Your task to perform on an android device: turn on showing notifications on the lock screen Image 0: 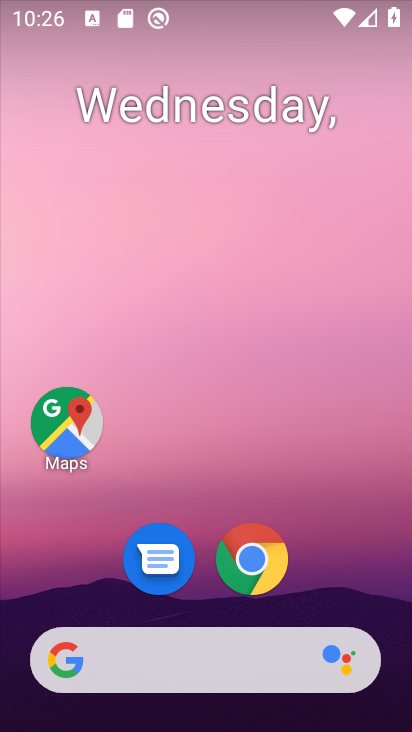
Step 0: drag from (221, 542) to (225, 13)
Your task to perform on an android device: turn on showing notifications on the lock screen Image 1: 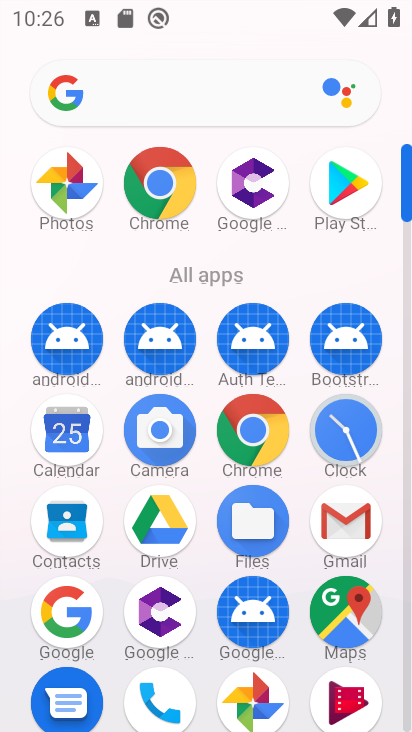
Step 1: drag from (188, 510) to (185, 166)
Your task to perform on an android device: turn on showing notifications on the lock screen Image 2: 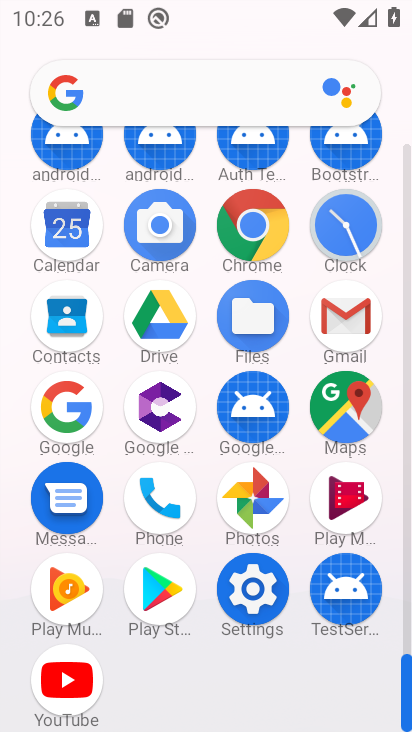
Step 2: click (262, 607)
Your task to perform on an android device: turn on showing notifications on the lock screen Image 3: 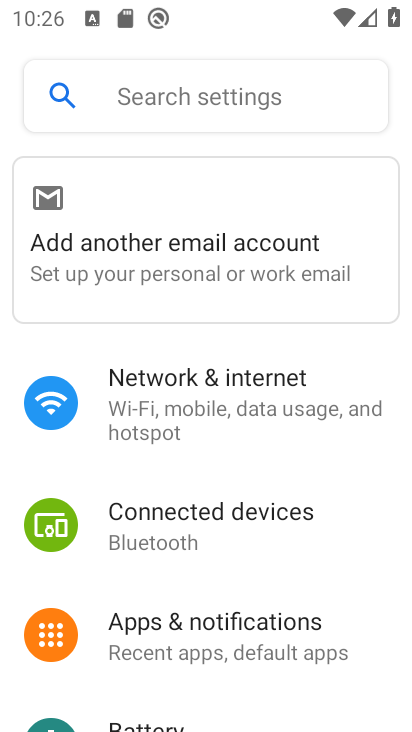
Step 3: drag from (229, 566) to (281, 234)
Your task to perform on an android device: turn on showing notifications on the lock screen Image 4: 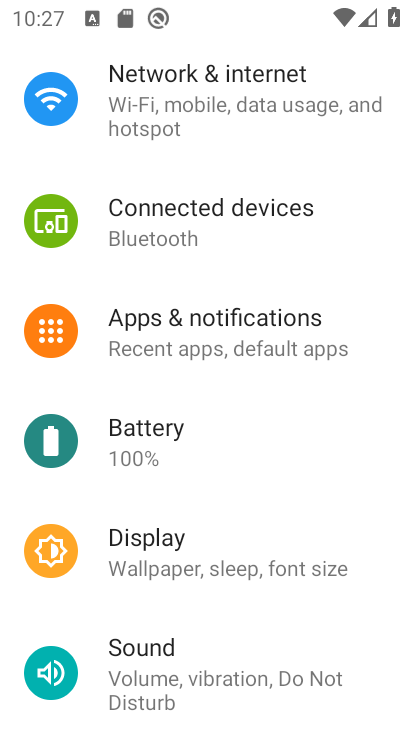
Step 4: click (249, 341)
Your task to perform on an android device: turn on showing notifications on the lock screen Image 5: 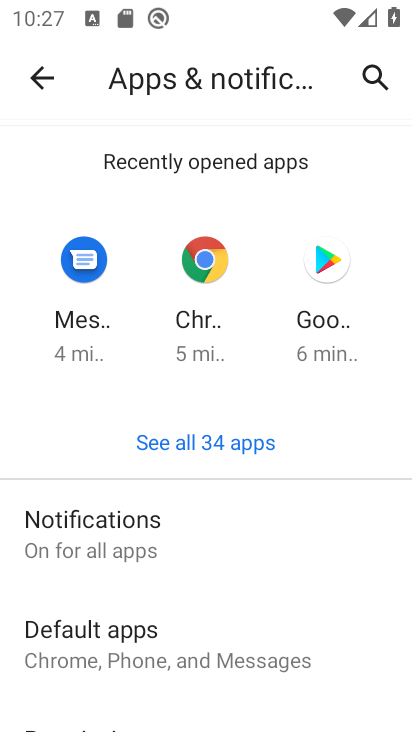
Step 5: click (208, 544)
Your task to perform on an android device: turn on showing notifications on the lock screen Image 6: 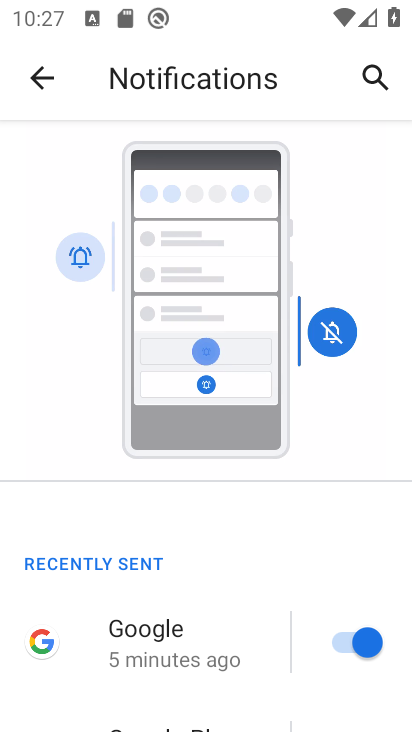
Step 6: drag from (152, 631) to (215, 255)
Your task to perform on an android device: turn on showing notifications on the lock screen Image 7: 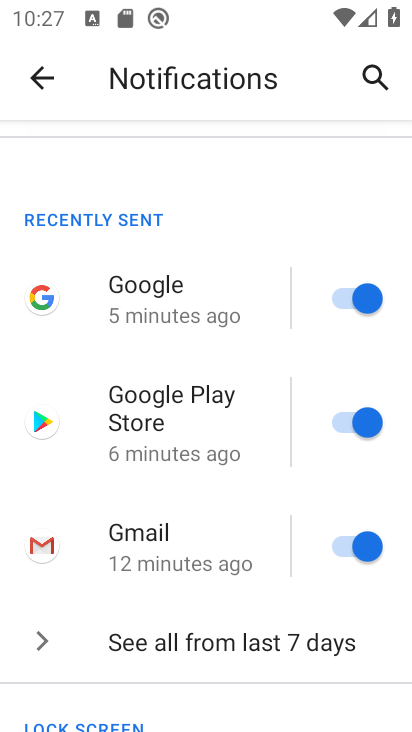
Step 7: drag from (167, 587) to (226, 318)
Your task to perform on an android device: turn on showing notifications on the lock screen Image 8: 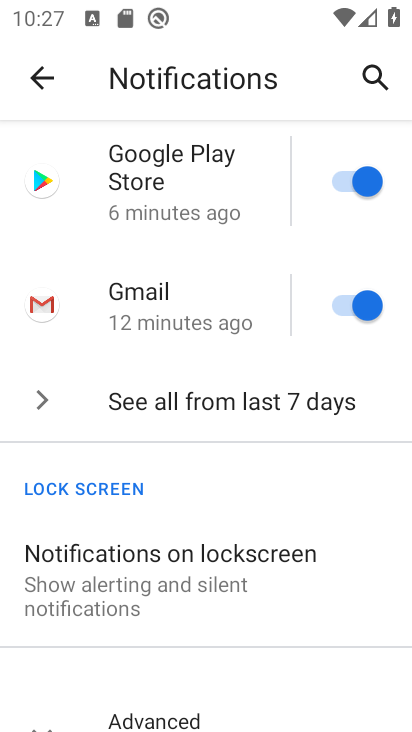
Step 8: click (240, 587)
Your task to perform on an android device: turn on showing notifications on the lock screen Image 9: 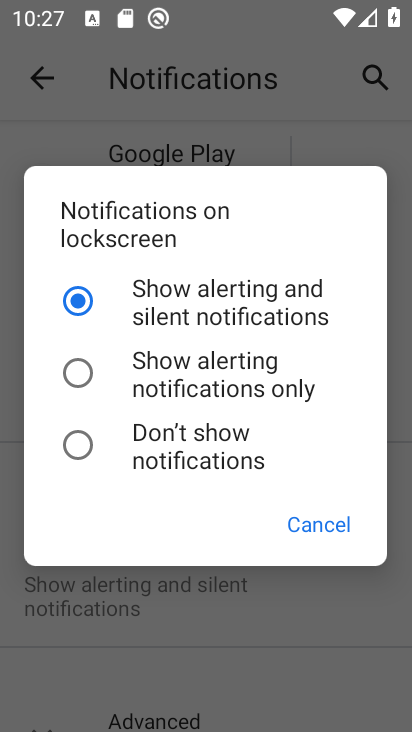
Step 9: task complete